Your task to perform on an android device: search for starred emails in the gmail app Image 0: 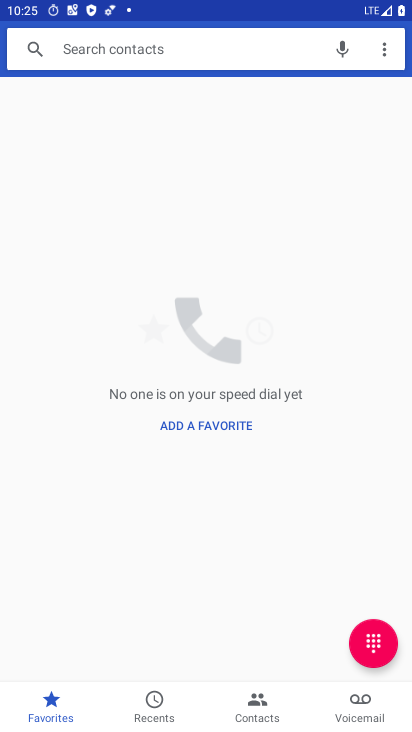
Step 0: press home button
Your task to perform on an android device: search for starred emails in the gmail app Image 1: 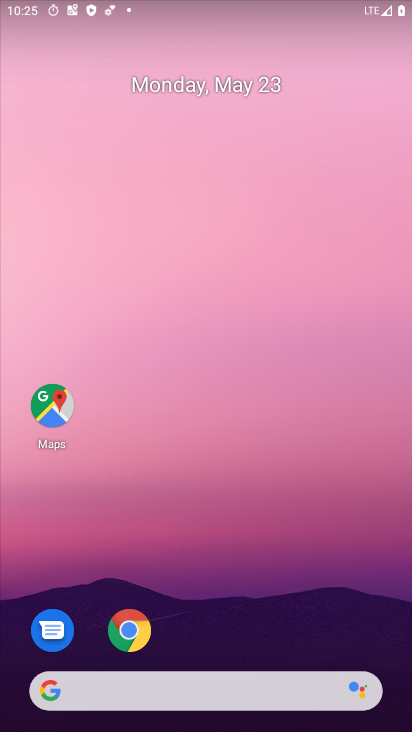
Step 1: drag from (267, 641) to (304, 5)
Your task to perform on an android device: search for starred emails in the gmail app Image 2: 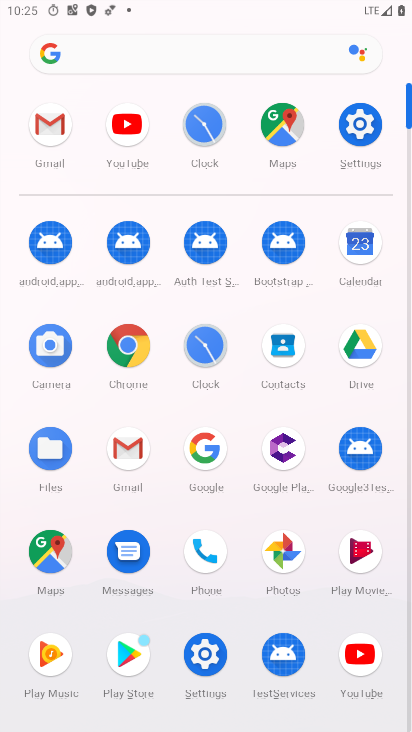
Step 2: click (47, 134)
Your task to perform on an android device: search for starred emails in the gmail app Image 3: 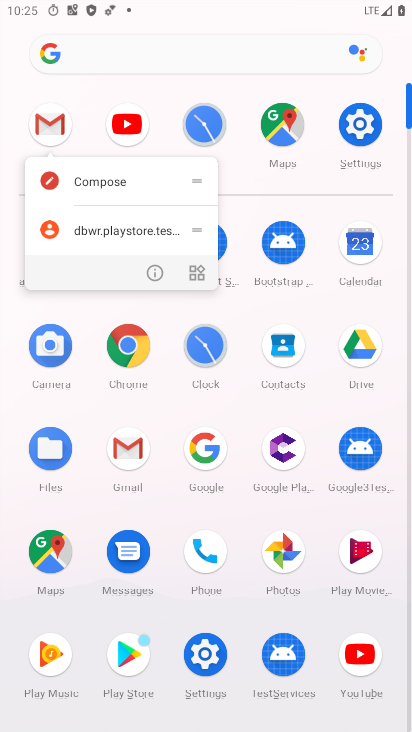
Step 3: click (55, 126)
Your task to perform on an android device: search for starred emails in the gmail app Image 4: 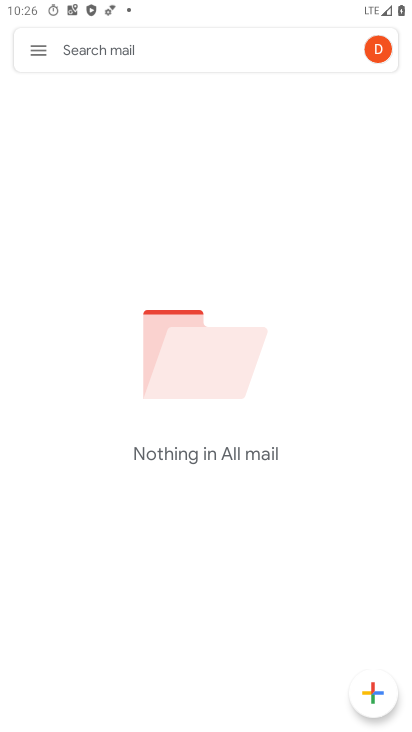
Step 4: click (36, 53)
Your task to perform on an android device: search for starred emails in the gmail app Image 5: 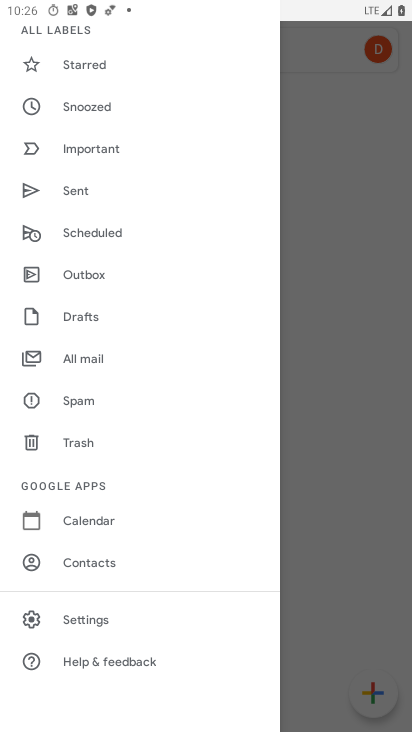
Step 5: click (79, 63)
Your task to perform on an android device: search for starred emails in the gmail app Image 6: 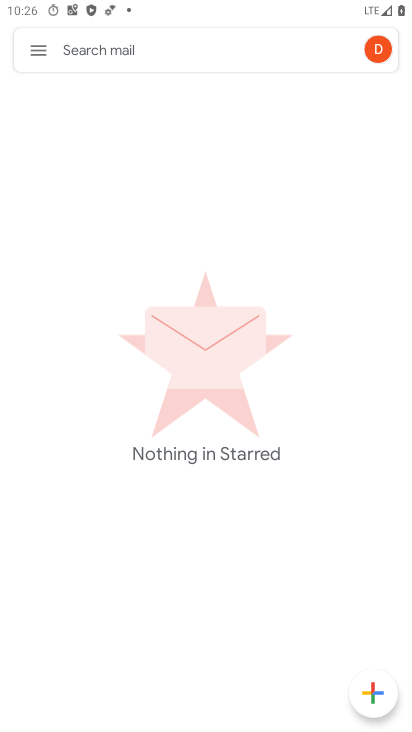
Step 6: task complete